Your task to perform on an android device: turn notification dots off Image 0: 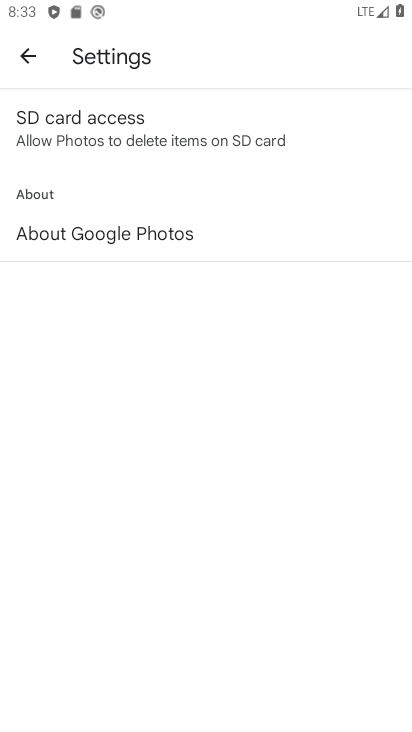
Step 0: press back button
Your task to perform on an android device: turn notification dots off Image 1: 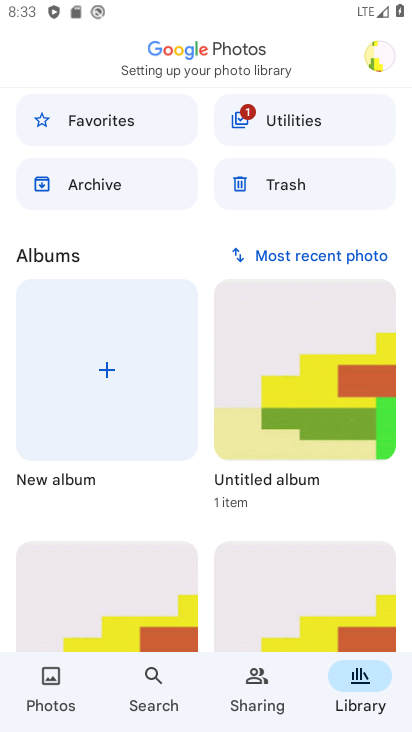
Step 1: press back button
Your task to perform on an android device: turn notification dots off Image 2: 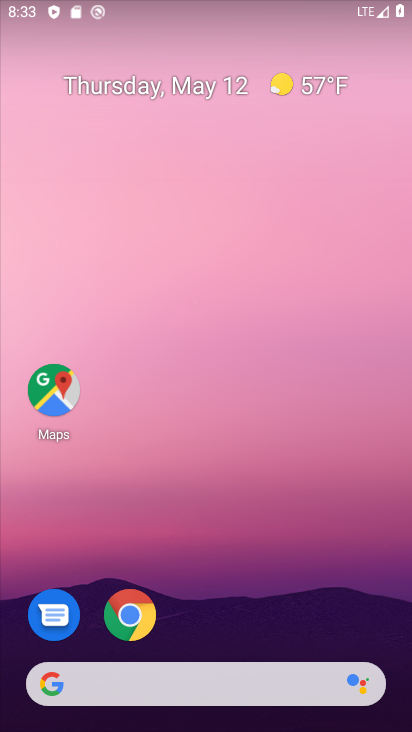
Step 2: drag from (328, 539) to (313, 11)
Your task to perform on an android device: turn notification dots off Image 3: 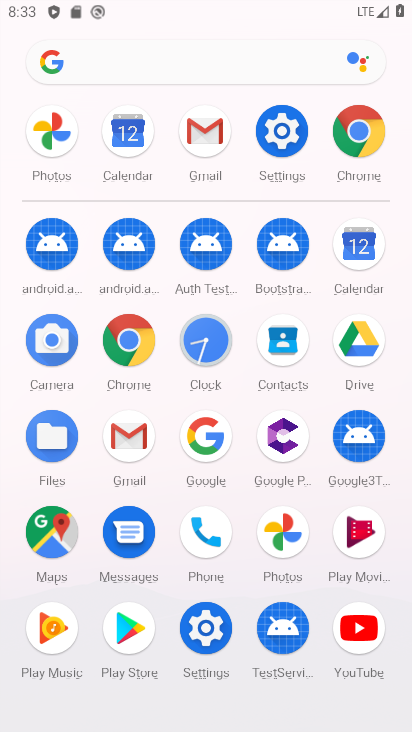
Step 3: click (279, 129)
Your task to perform on an android device: turn notification dots off Image 4: 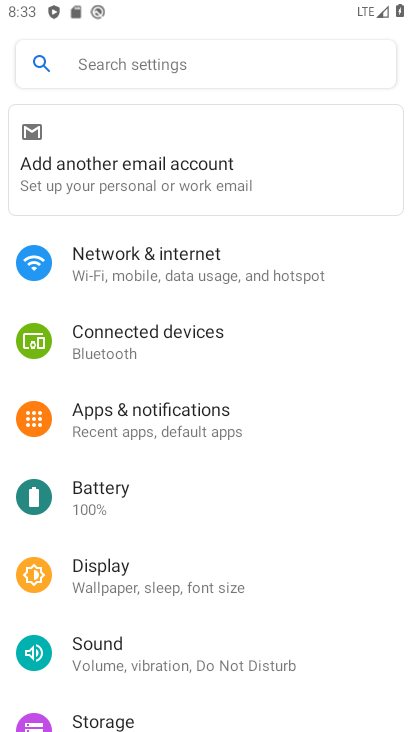
Step 4: click (198, 423)
Your task to perform on an android device: turn notification dots off Image 5: 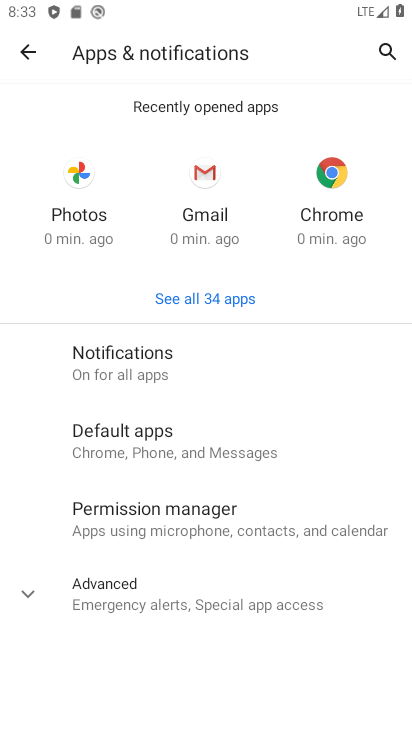
Step 5: click (151, 346)
Your task to perform on an android device: turn notification dots off Image 6: 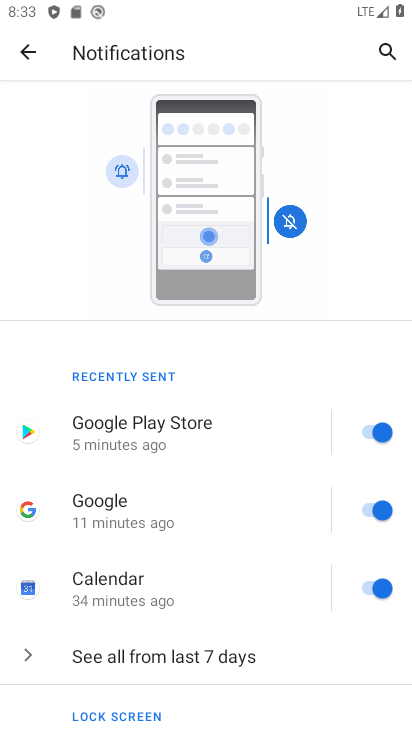
Step 6: drag from (221, 591) to (304, 143)
Your task to perform on an android device: turn notification dots off Image 7: 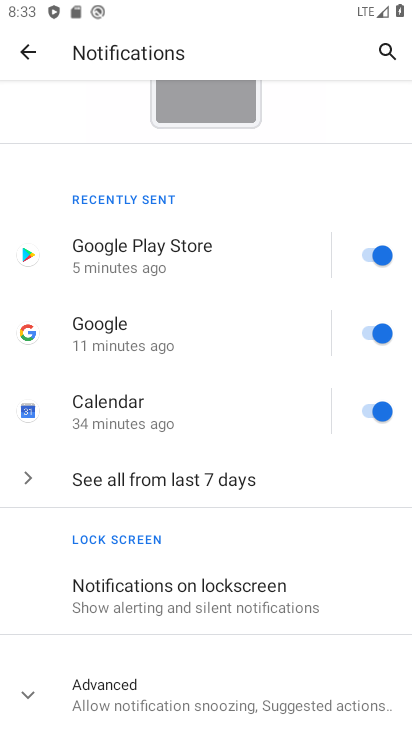
Step 7: click (163, 685)
Your task to perform on an android device: turn notification dots off Image 8: 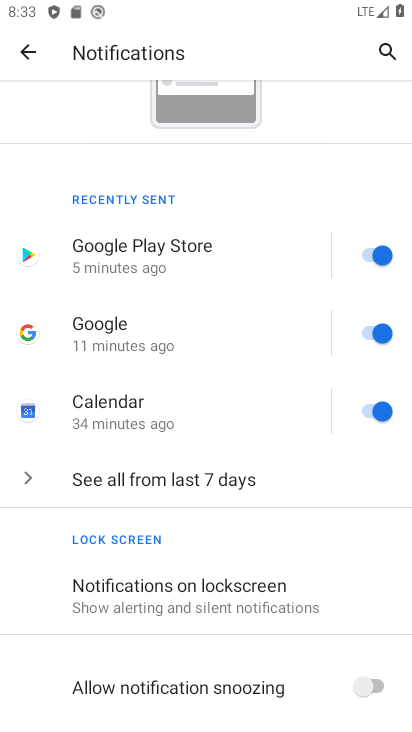
Step 8: task complete